Your task to perform on an android device: toggle sleep mode Image 0: 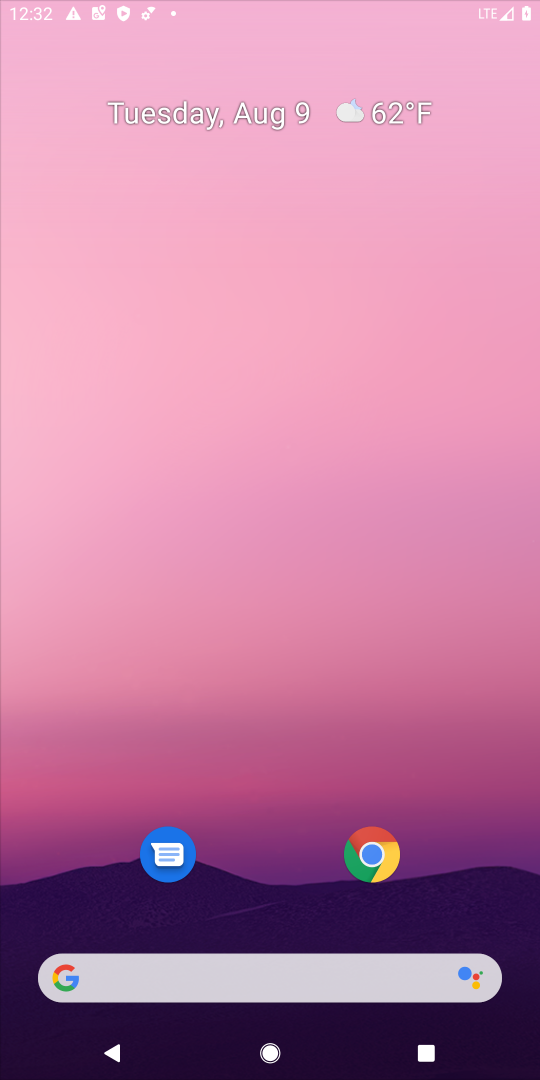
Step 0: press back button
Your task to perform on an android device: toggle sleep mode Image 1: 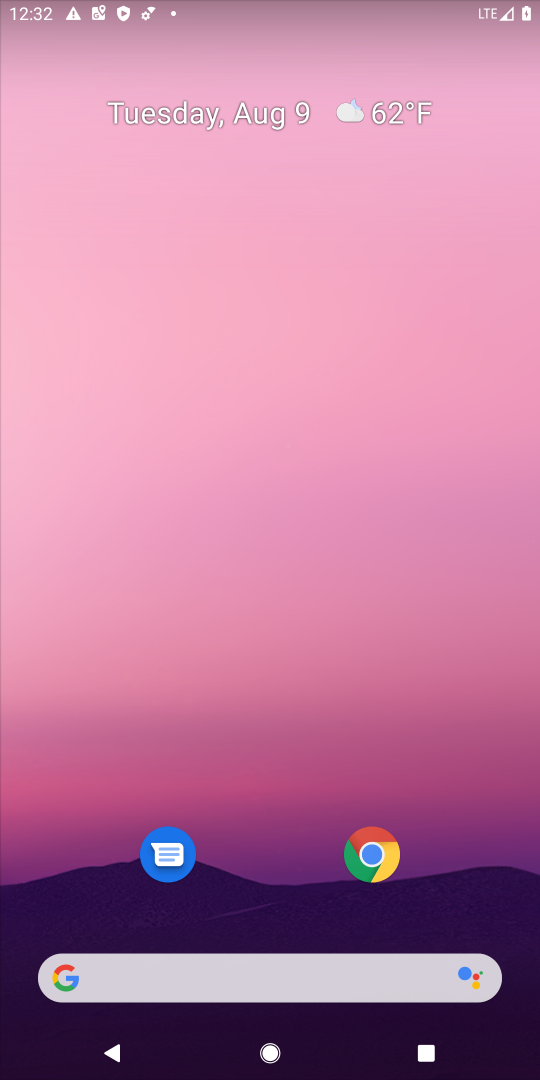
Step 1: drag from (220, 846) to (285, 57)
Your task to perform on an android device: toggle sleep mode Image 2: 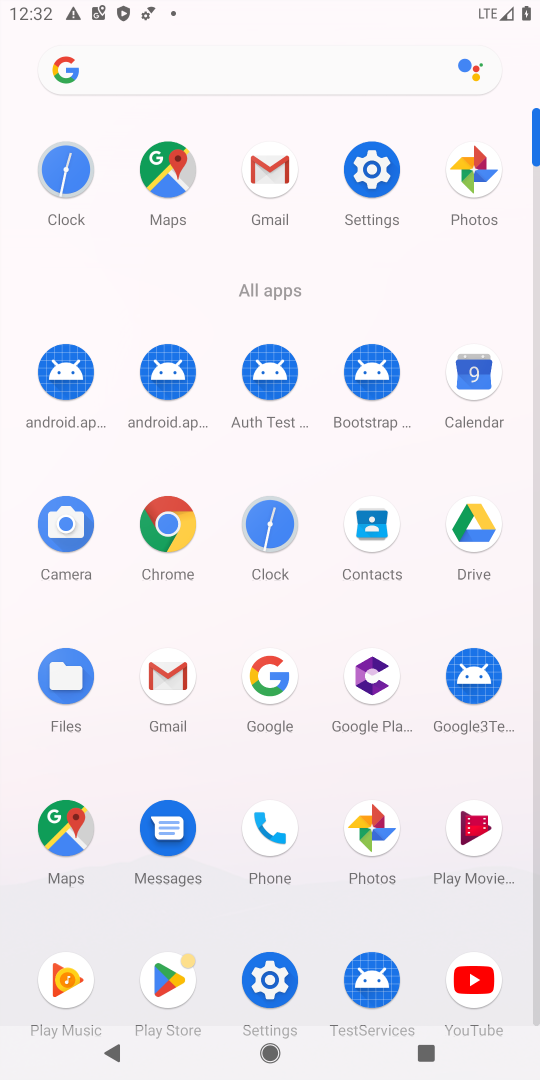
Step 2: click (369, 169)
Your task to perform on an android device: toggle sleep mode Image 3: 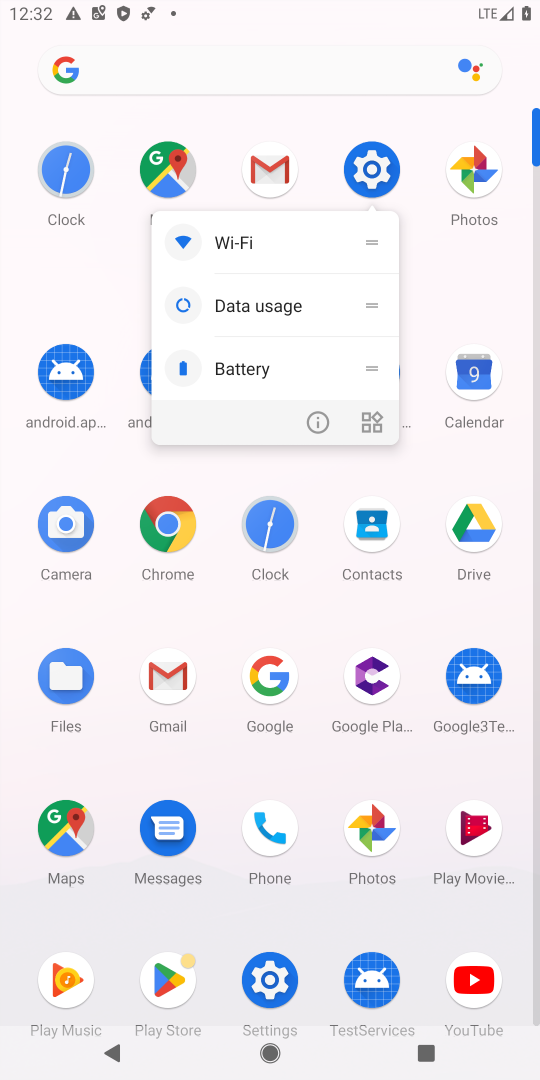
Step 3: click (373, 173)
Your task to perform on an android device: toggle sleep mode Image 4: 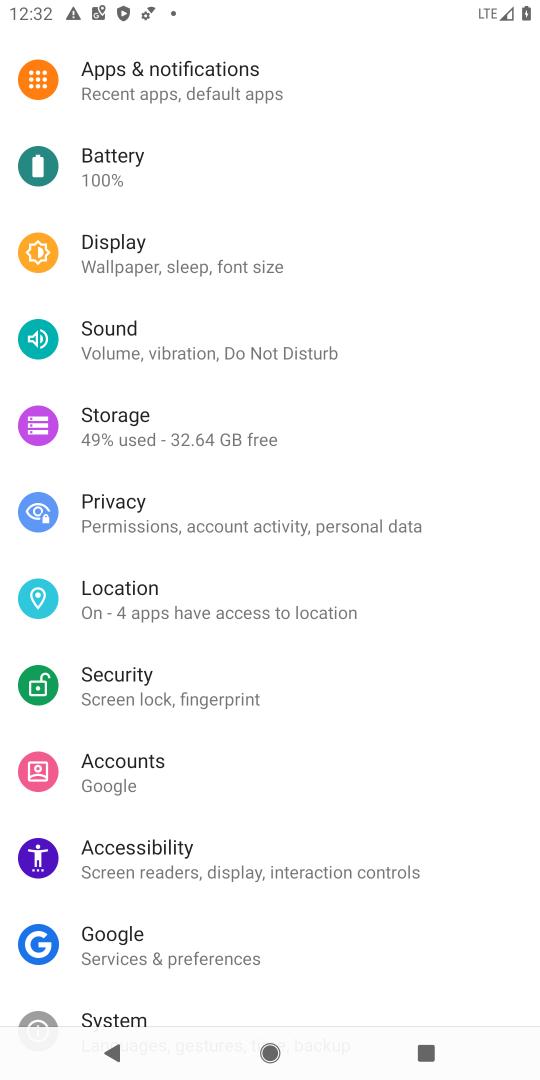
Step 4: drag from (365, 205) to (324, 705)
Your task to perform on an android device: toggle sleep mode Image 5: 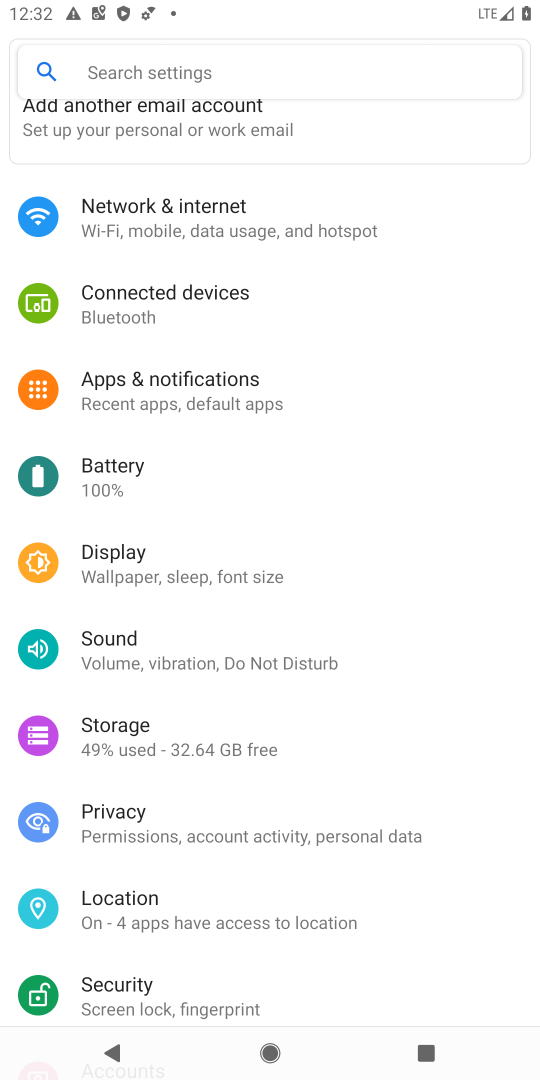
Step 5: click (282, 77)
Your task to perform on an android device: toggle sleep mode Image 6: 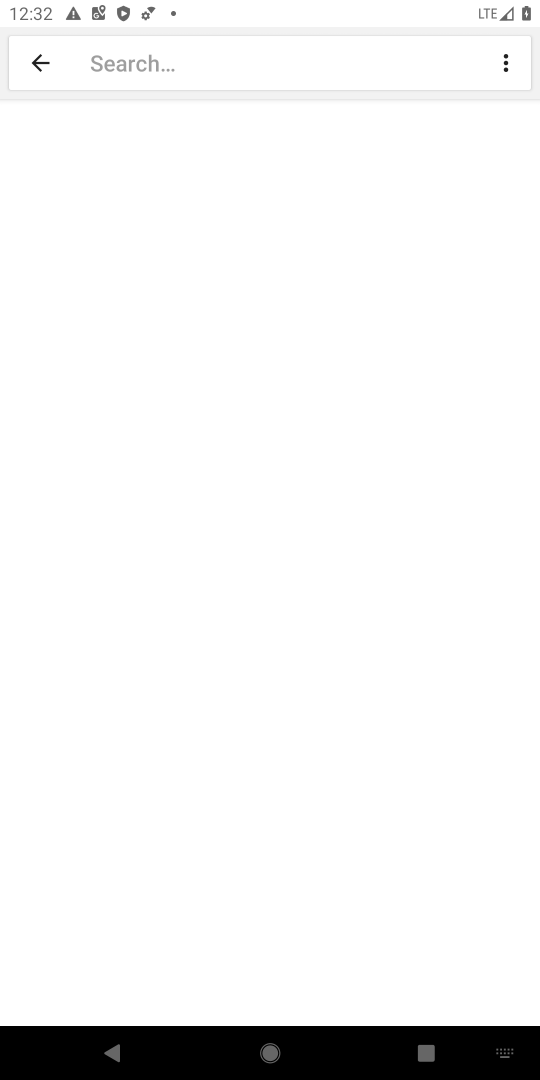
Step 6: type "sleep mode"
Your task to perform on an android device: toggle sleep mode Image 7: 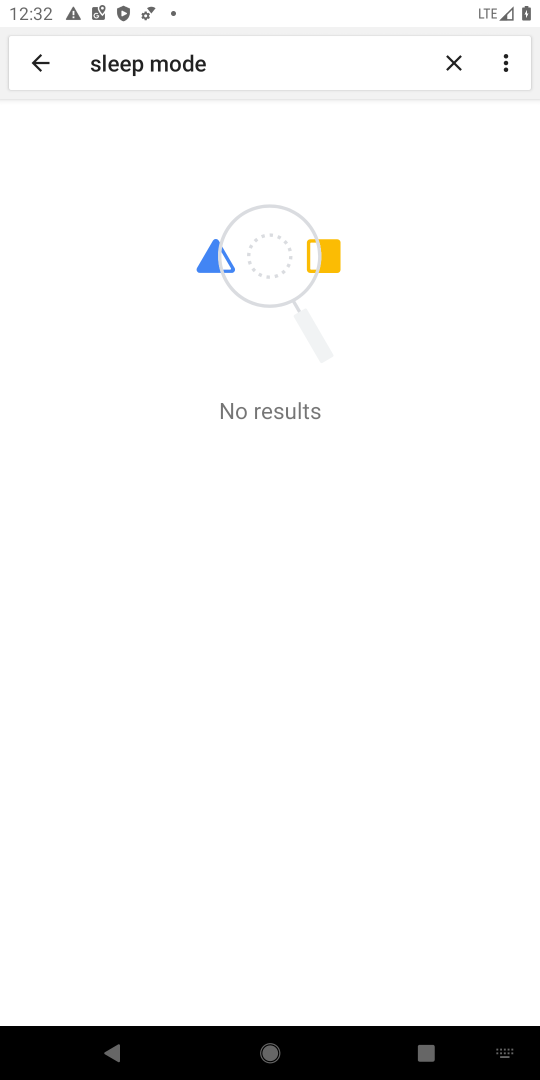
Step 7: task complete